Your task to perform on an android device: open app "Google Duo" Image 0: 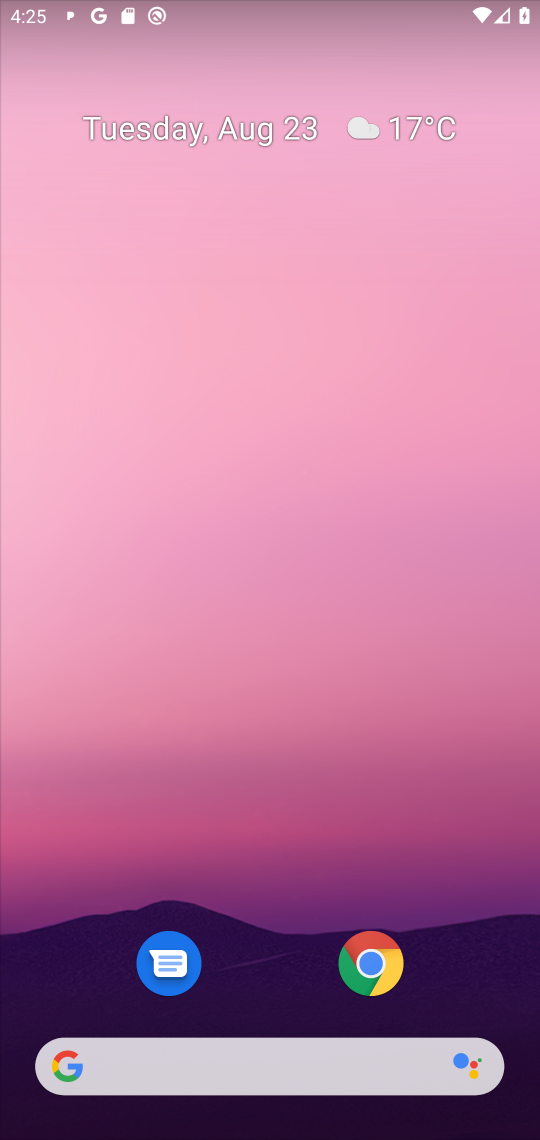
Step 0: drag from (271, 1001) to (219, 204)
Your task to perform on an android device: open app "Google Duo" Image 1: 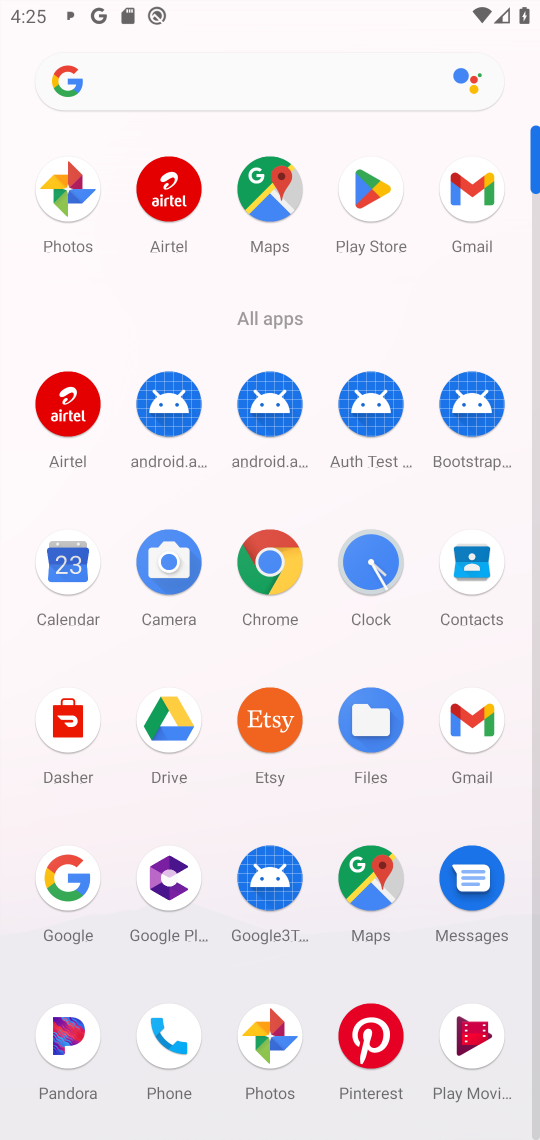
Step 1: click (367, 198)
Your task to perform on an android device: open app "Google Duo" Image 2: 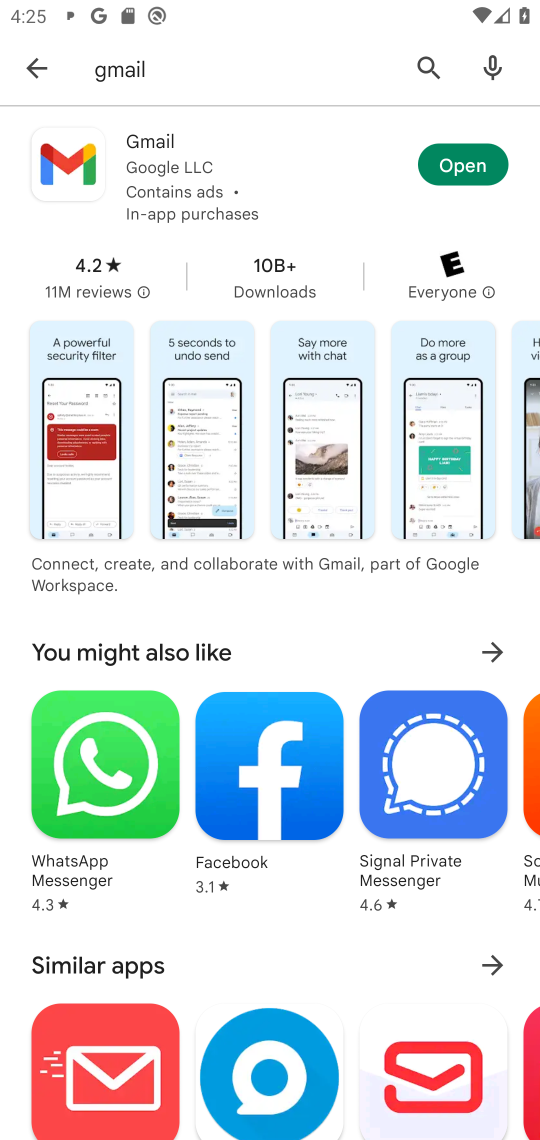
Step 2: click (417, 57)
Your task to perform on an android device: open app "Google Duo" Image 3: 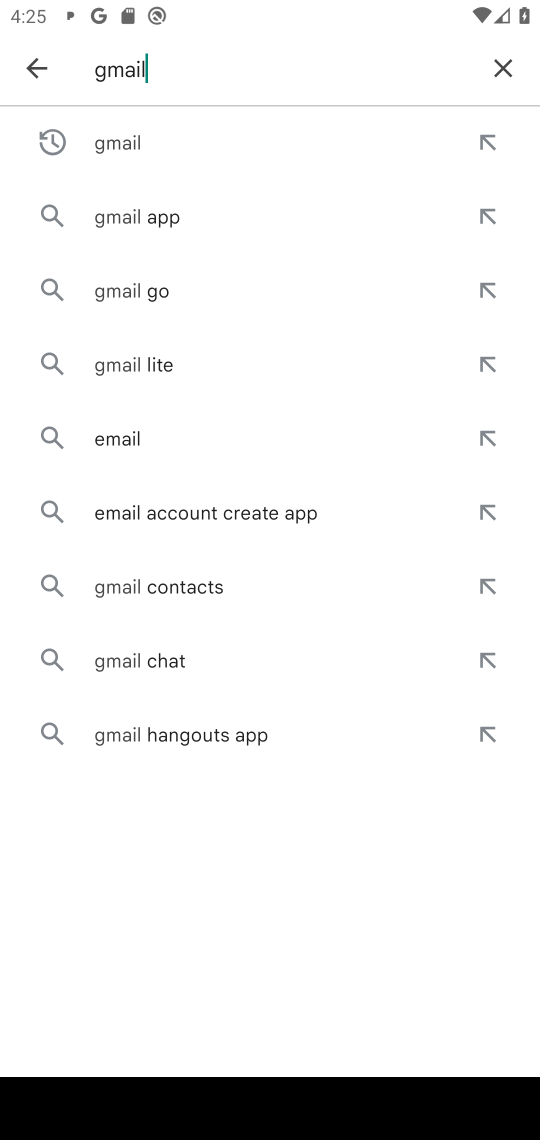
Step 3: click (499, 79)
Your task to perform on an android device: open app "Google Duo" Image 4: 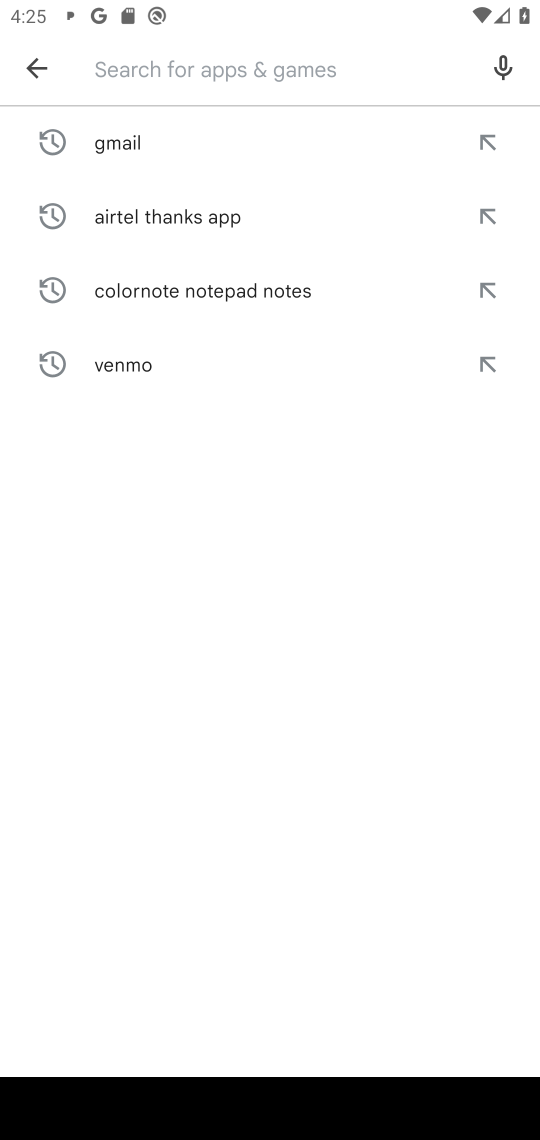
Step 4: type "Google Duo"
Your task to perform on an android device: open app "Google Duo" Image 5: 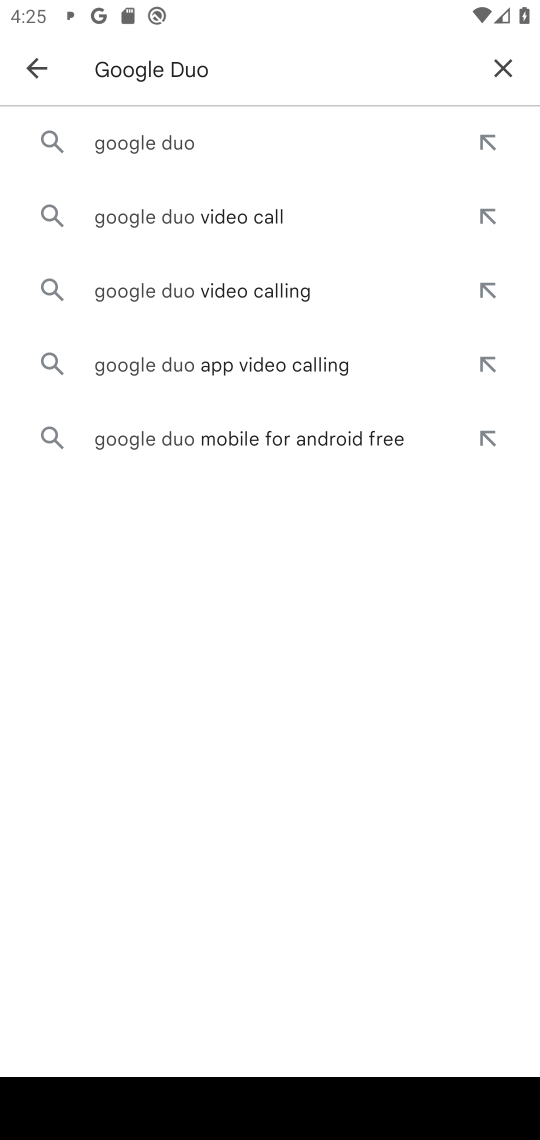
Step 5: click (176, 132)
Your task to perform on an android device: open app "Google Duo" Image 6: 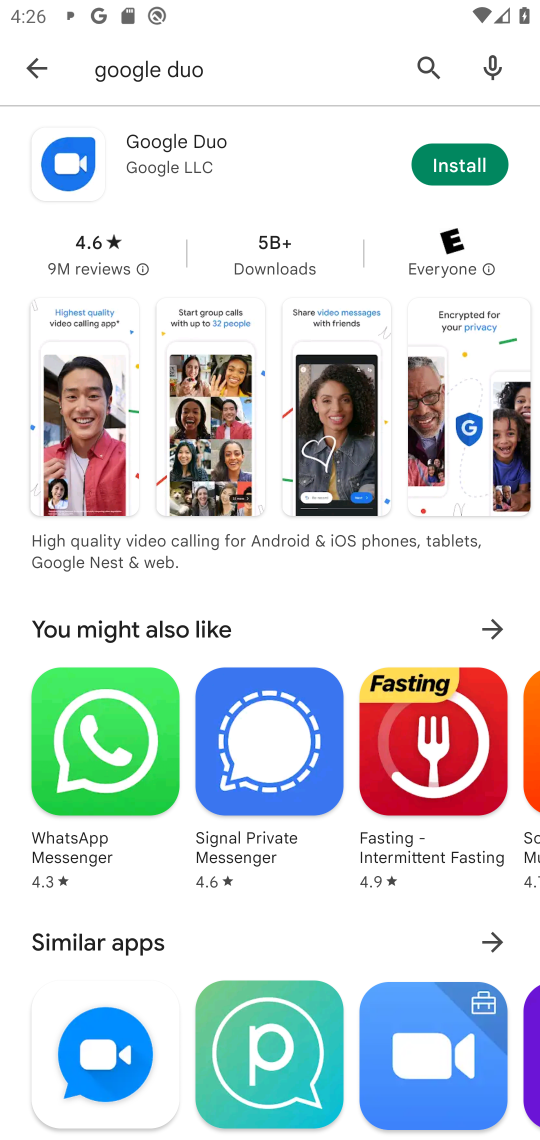
Step 6: task complete